Your task to perform on an android device: all mails in gmail Image 0: 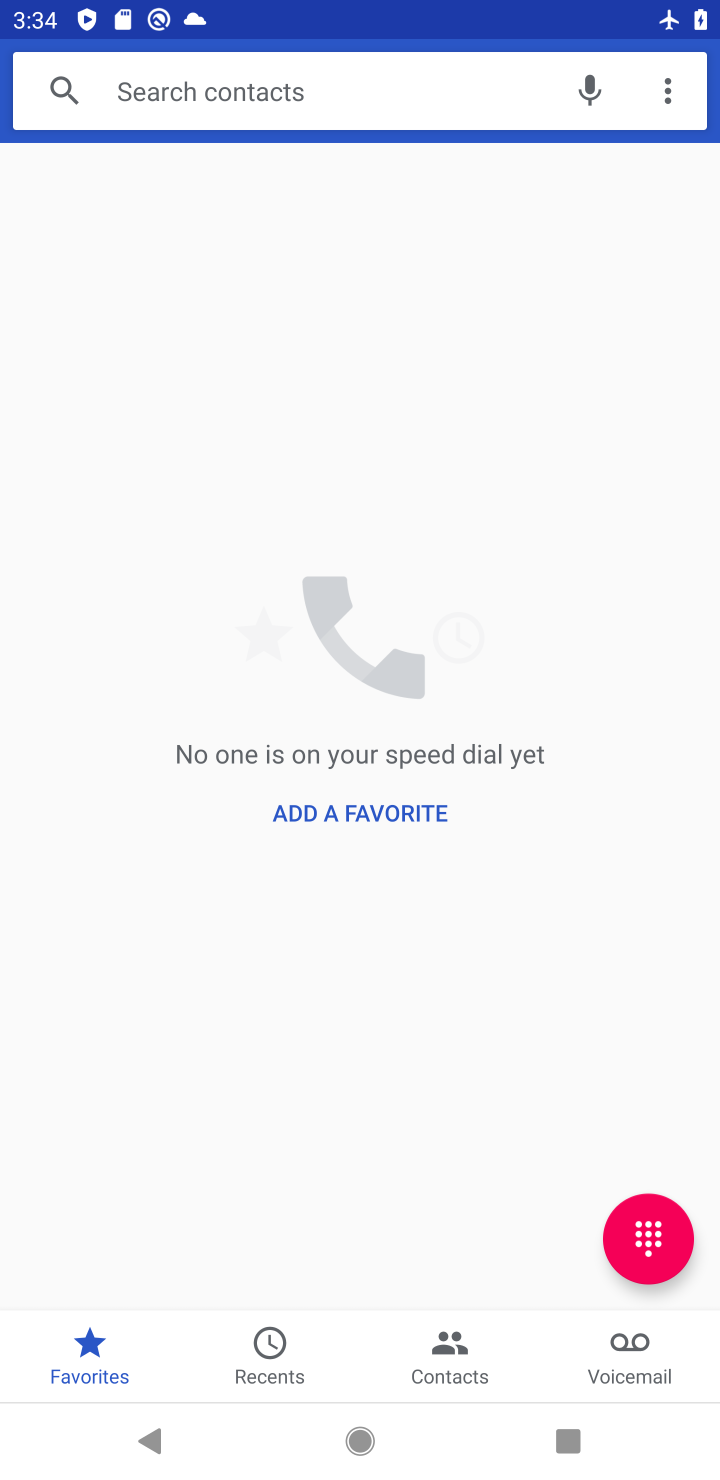
Step 0: press back button
Your task to perform on an android device: all mails in gmail Image 1: 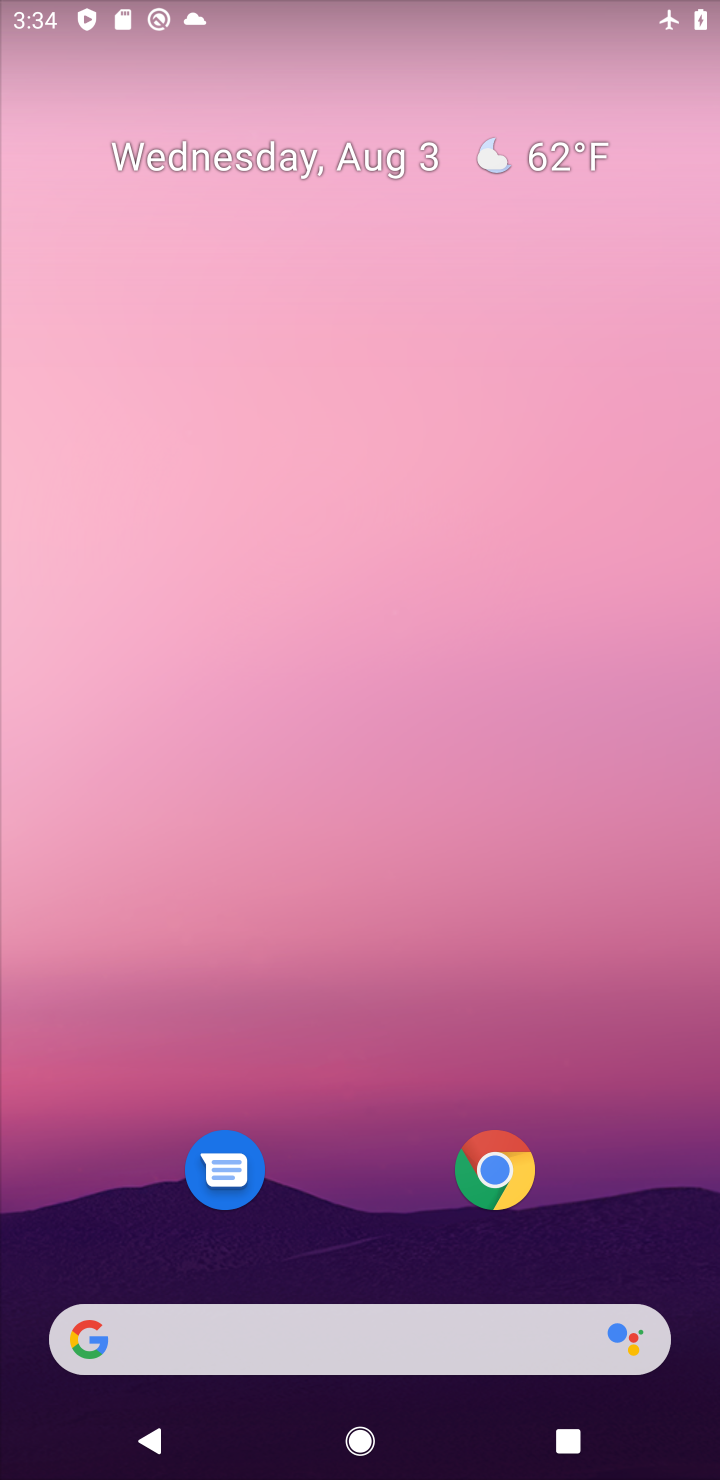
Step 1: drag from (316, 1012) to (306, 380)
Your task to perform on an android device: all mails in gmail Image 2: 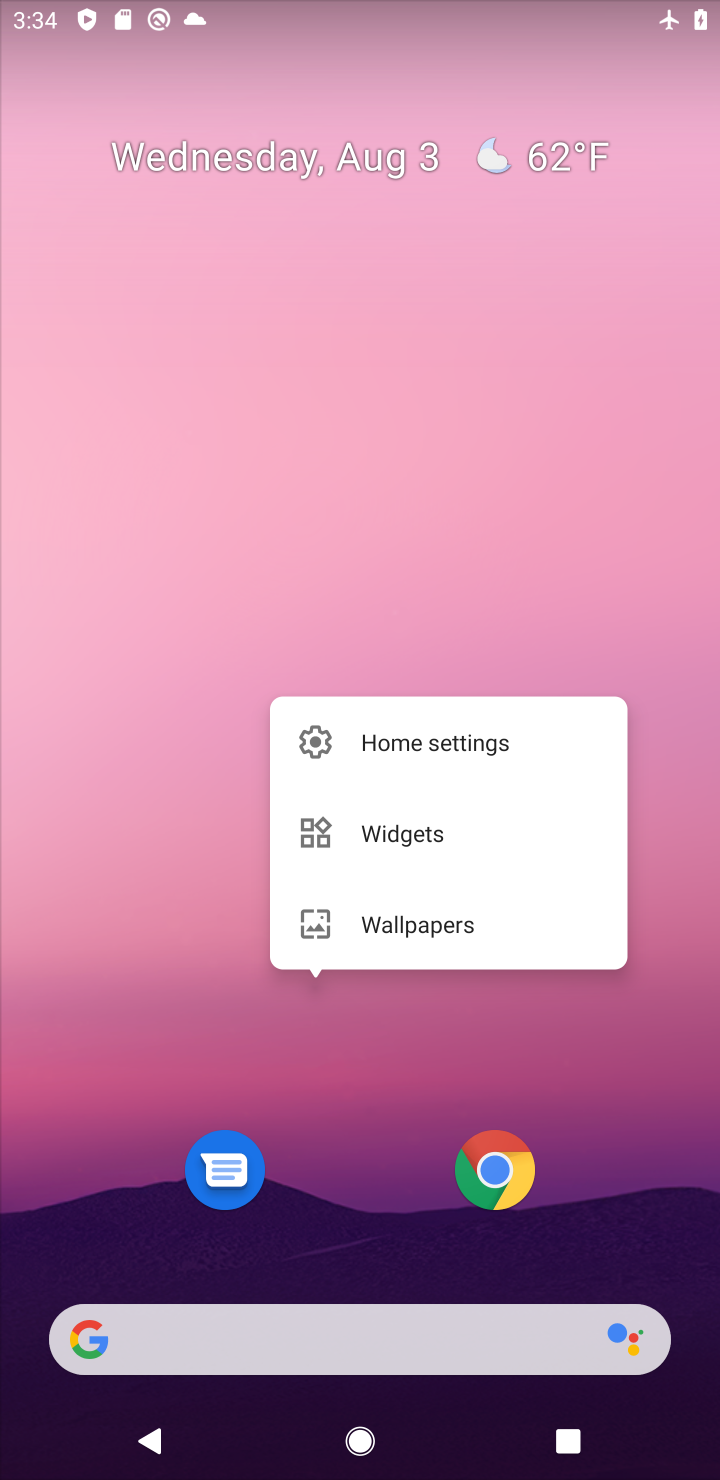
Step 2: click (396, 1148)
Your task to perform on an android device: all mails in gmail Image 3: 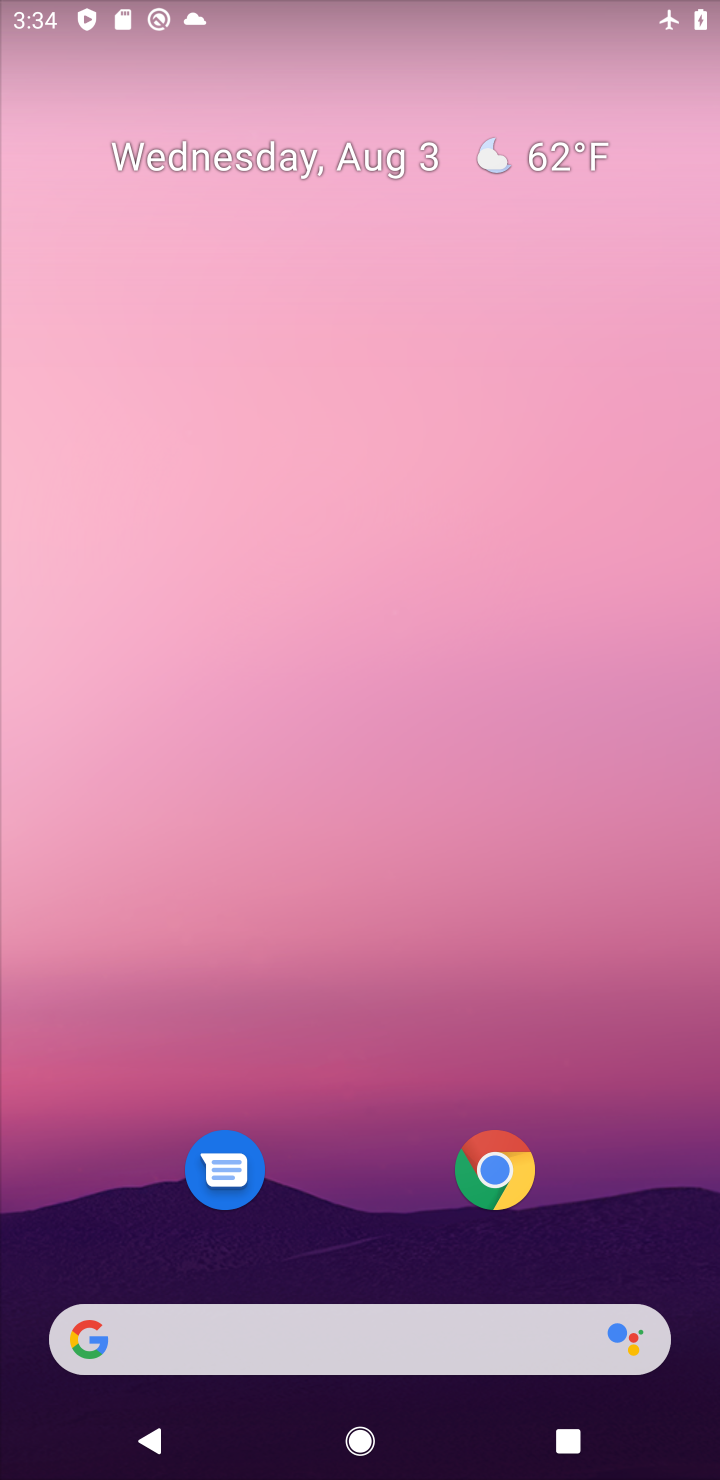
Step 3: drag from (396, 1138) to (354, 296)
Your task to perform on an android device: all mails in gmail Image 4: 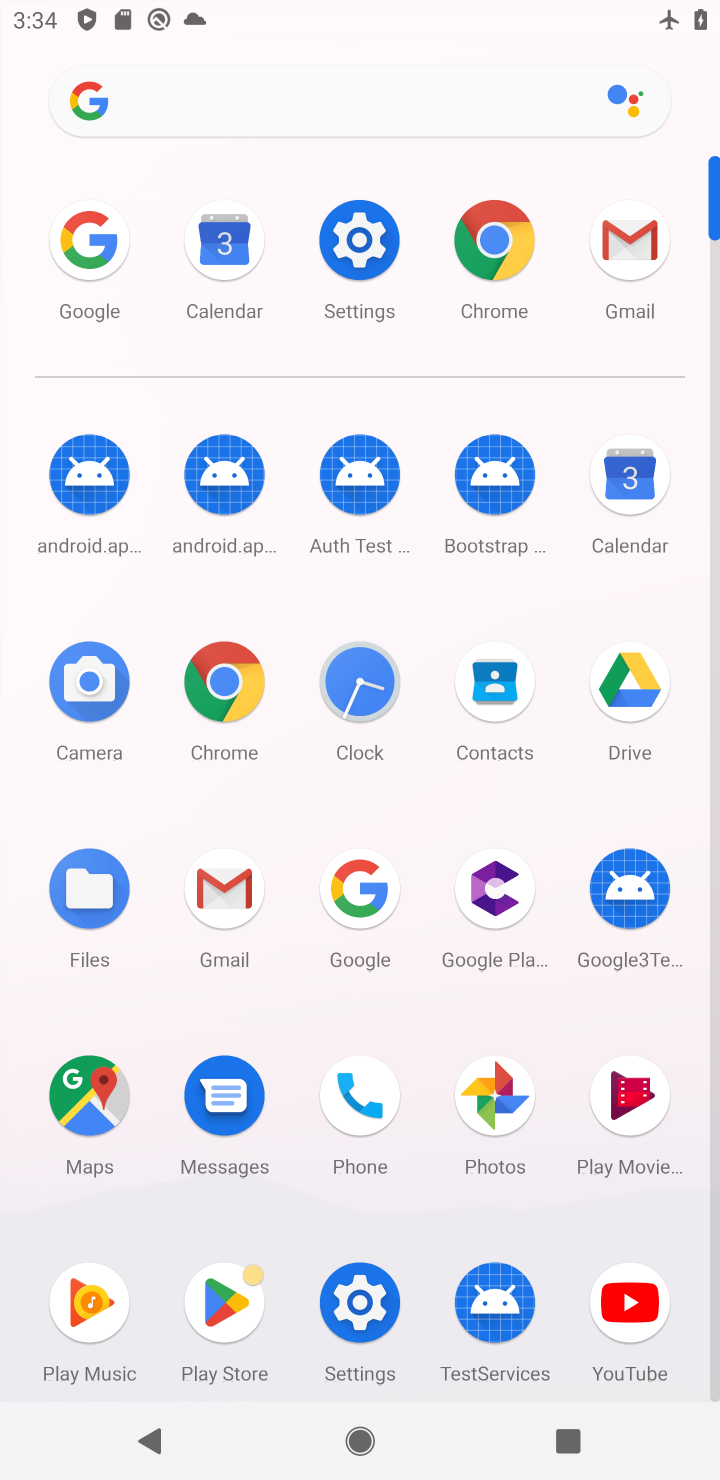
Step 4: click (630, 284)
Your task to perform on an android device: all mails in gmail Image 5: 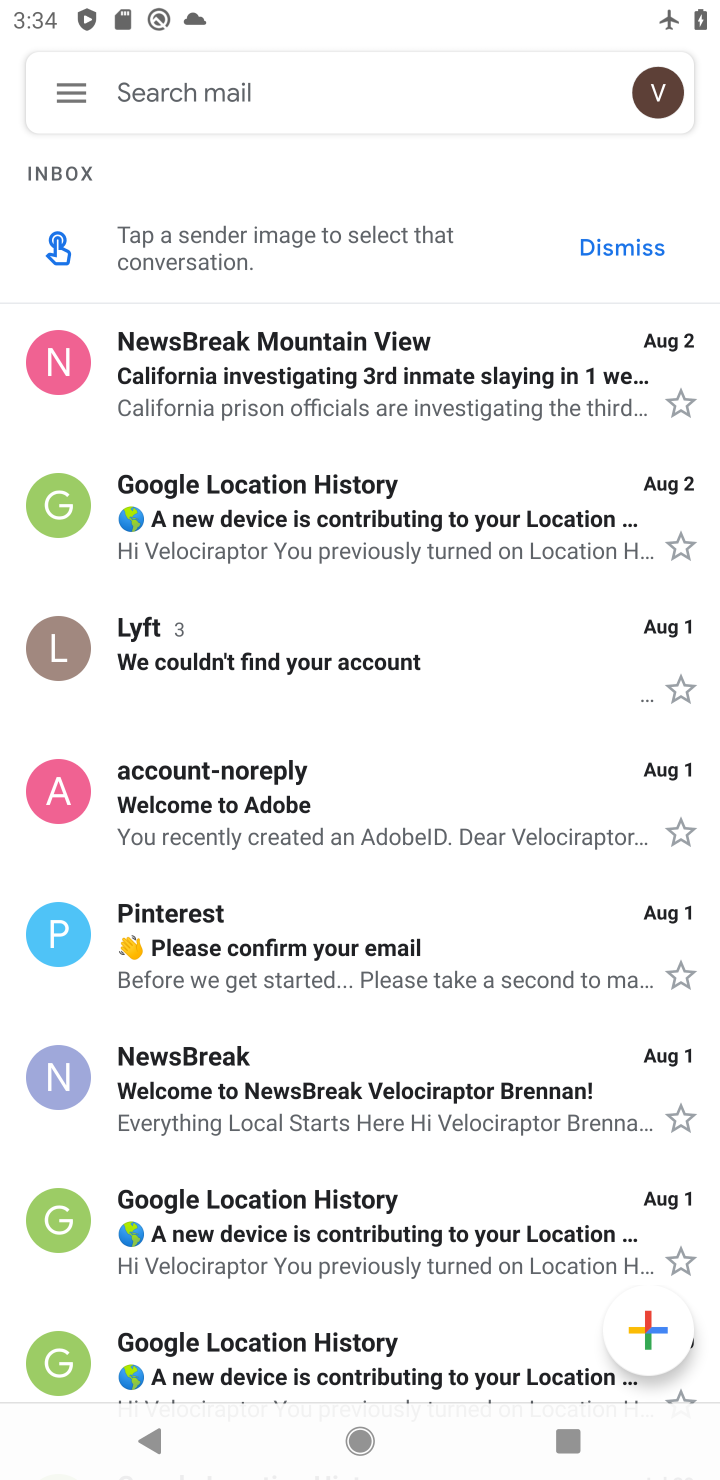
Step 5: click (61, 76)
Your task to perform on an android device: all mails in gmail Image 6: 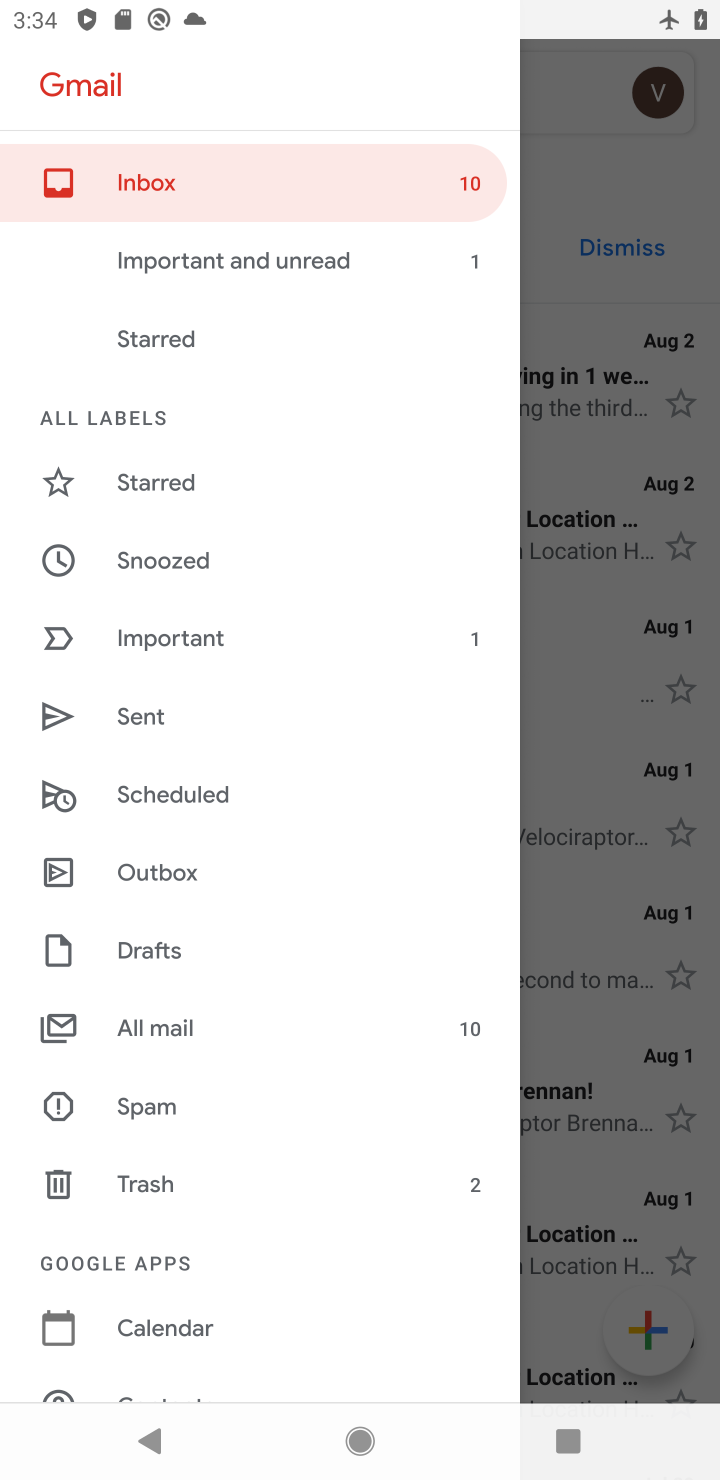
Step 6: click (86, 1022)
Your task to perform on an android device: all mails in gmail Image 7: 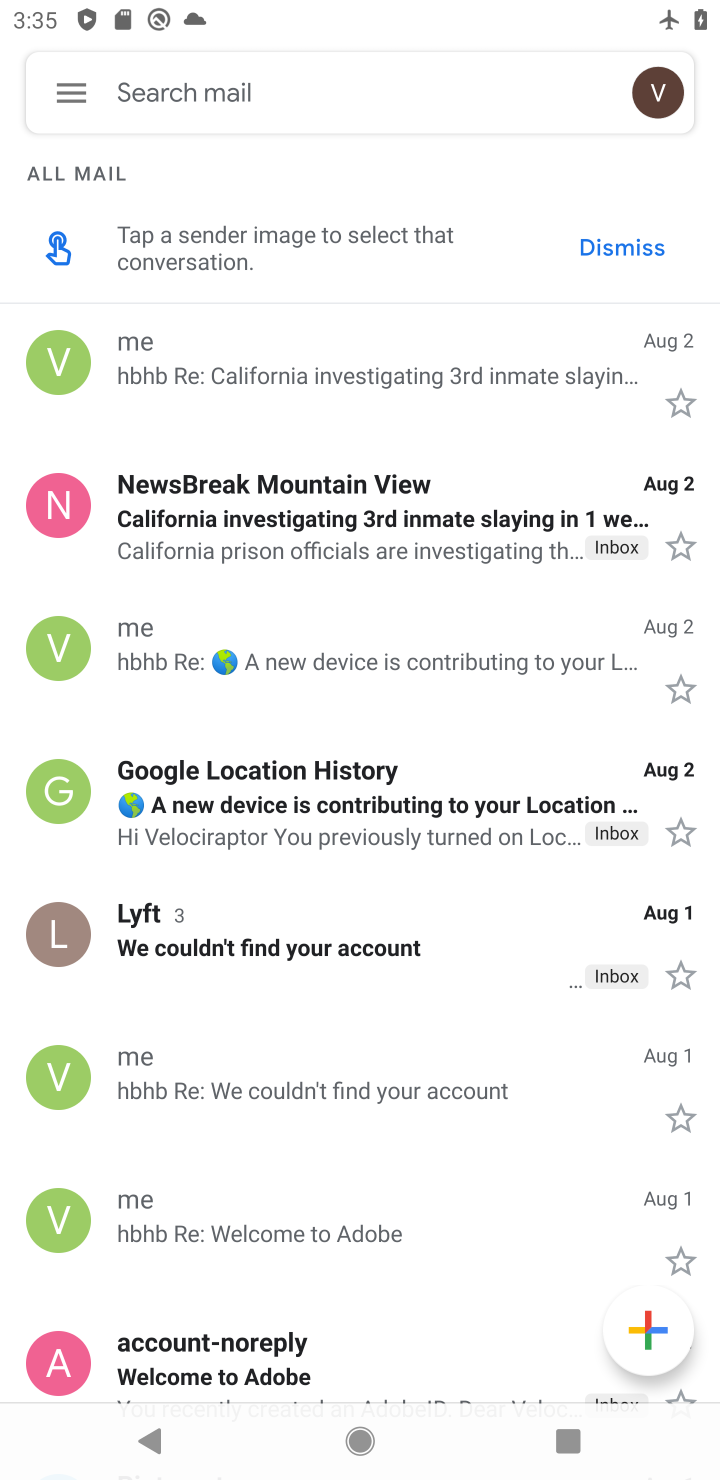
Step 7: task complete